Your task to perform on an android device: Open Amazon Image 0: 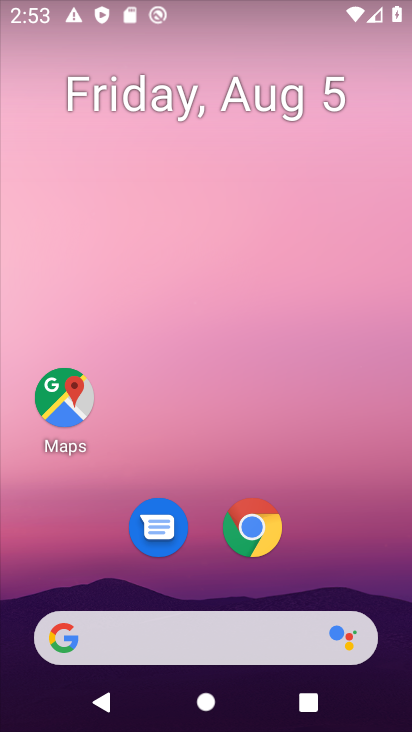
Step 0: click (252, 525)
Your task to perform on an android device: Open Amazon Image 1: 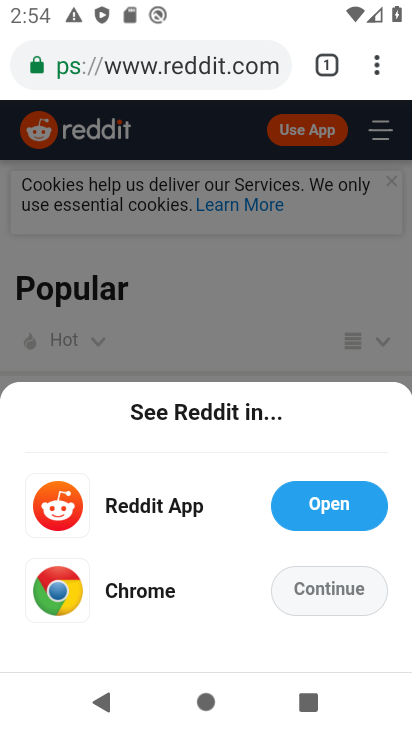
Step 1: click (375, 72)
Your task to perform on an android device: Open Amazon Image 2: 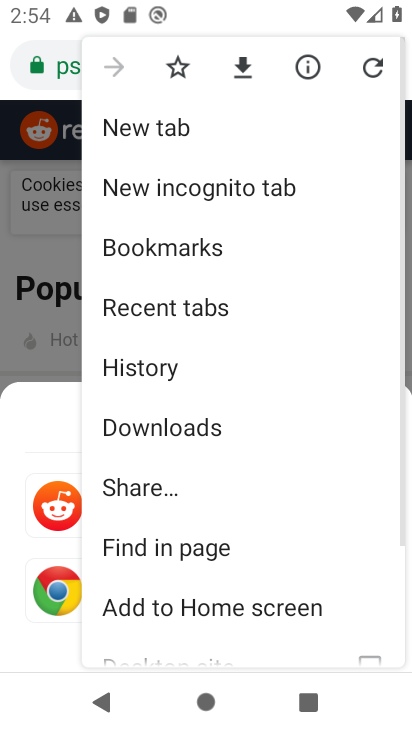
Step 2: click (164, 124)
Your task to perform on an android device: Open Amazon Image 3: 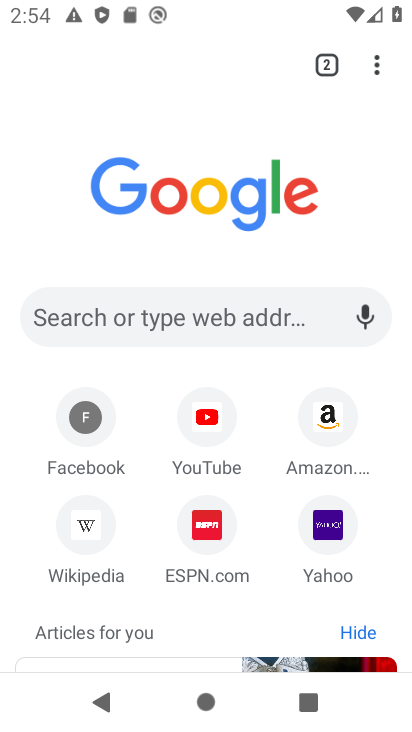
Step 3: click (313, 423)
Your task to perform on an android device: Open Amazon Image 4: 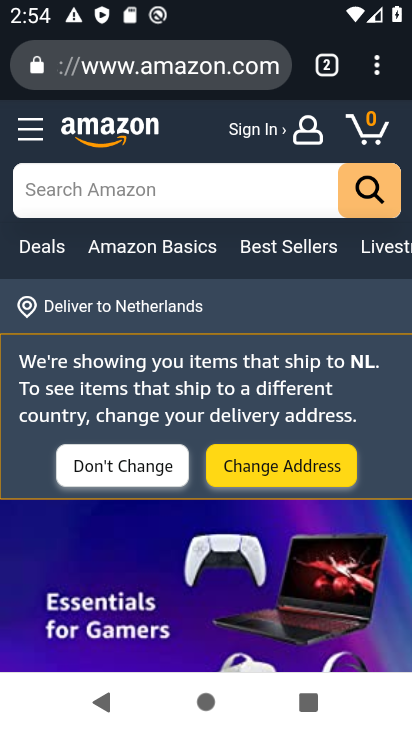
Step 4: task complete